Your task to perform on an android device: make emails show in primary in the gmail app Image 0: 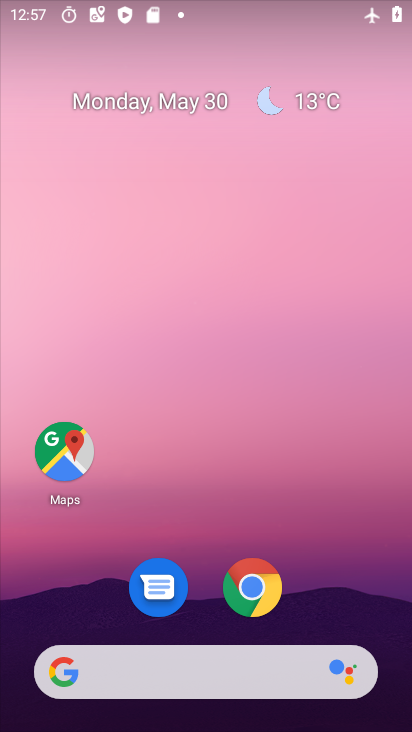
Step 0: drag from (338, 587) to (279, 76)
Your task to perform on an android device: make emails show in primary in the gmail app Image 1: 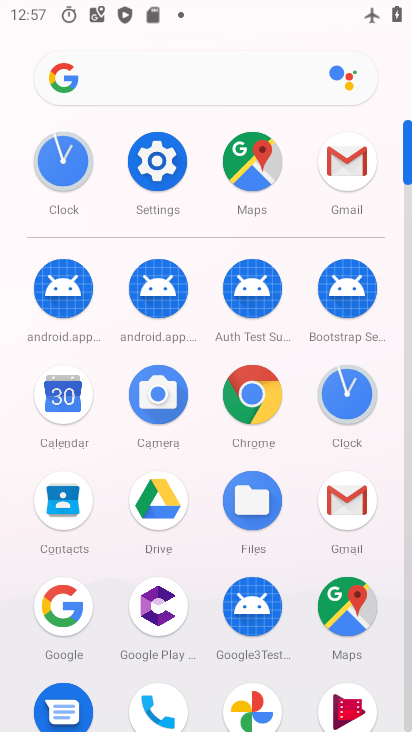
Step 1: click (346, 141)
Your task to perform on an android device: make emails show in primary in the gmail app Image 2: 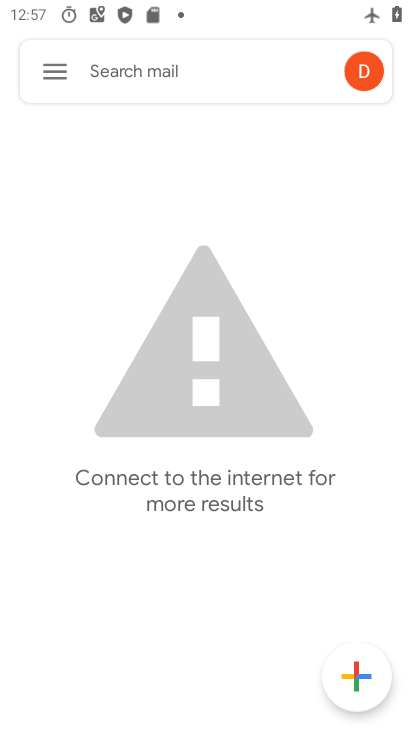
Step 2: click (53, 57)
Your task to perform on an android device: make emails show in primary in the gmail app Image 3: 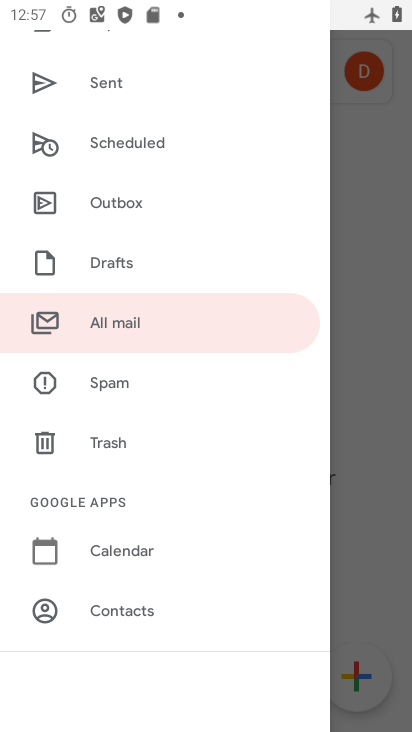
Step 3: drag from (145, 639) to (256, 175)
Your task to perform on an android device: make emails show in primary in the gmail app Image 4: 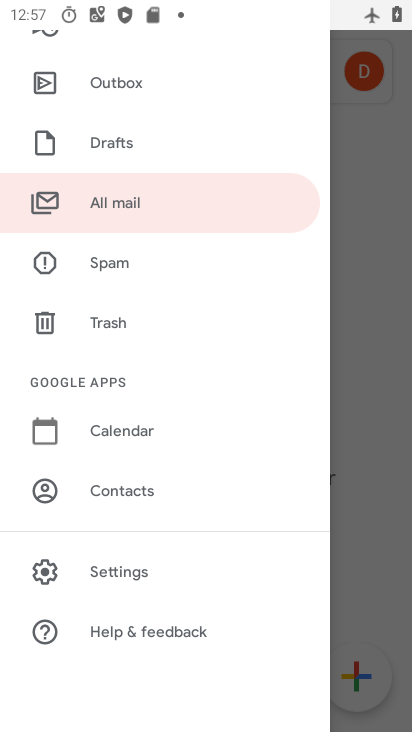
Step 4: click (111, 577)
Your task to perform on an android device: make emails show in primary in the gmail app Image 5: 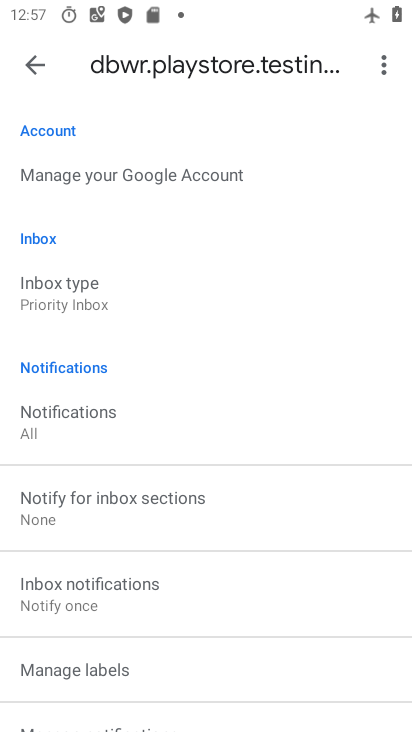
Step 5: click (79, 313)
Your task to perform on an android device: make emails show in primary in the gmail app Image 6: 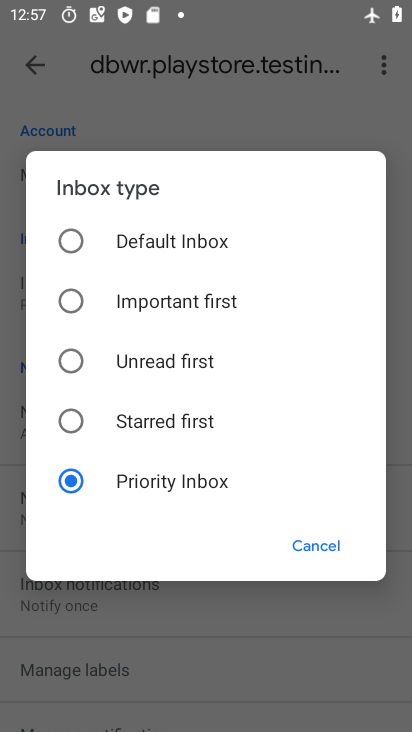
Step 6: click (165, 238)
Your task to perform on an android device: make emails show in primary in the gmail app Image 7: 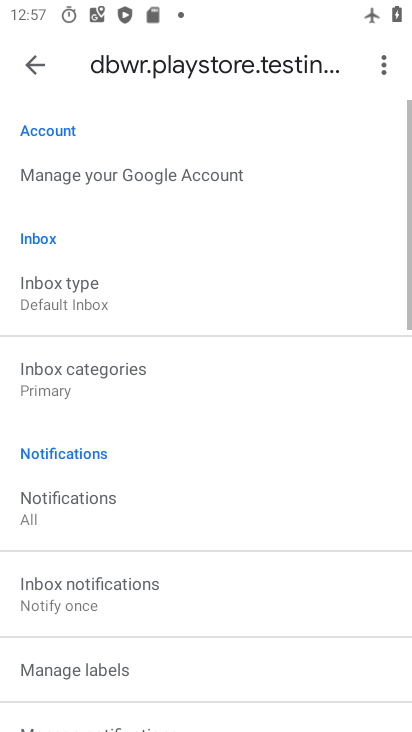
Step 7: click (135, 367)
Your task to perform on an android device: make emails show in primary in the gmail app Image 8: 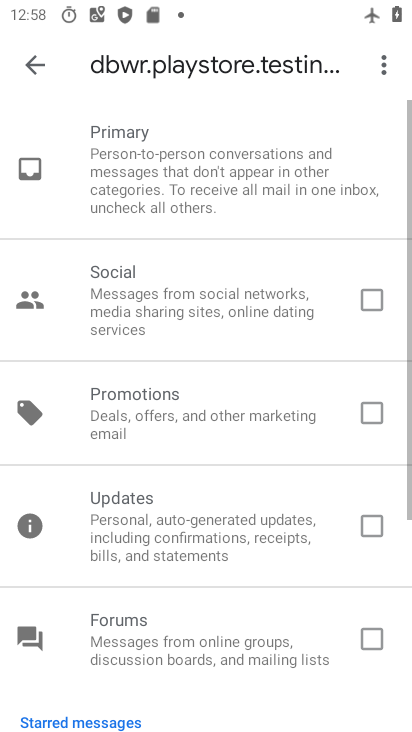
Step 8: task complete